Your task to perform on an android device: toggle notification dots Image 0: 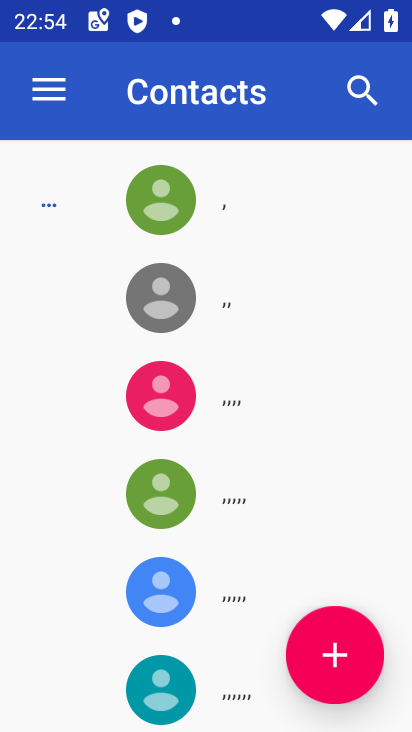
Step 0: press home button
Your task to perform on an android device: toggle notification dots Image 1: 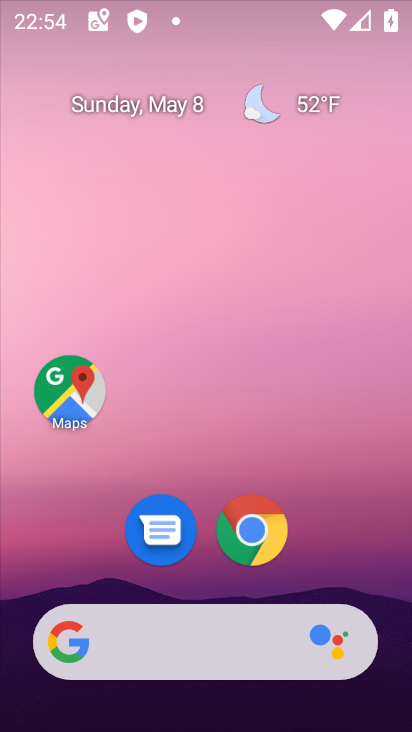
Step 1: drag from (353, 527) to (381, 89)
Your task to perform on an android device: toggle notification dots Image 2: 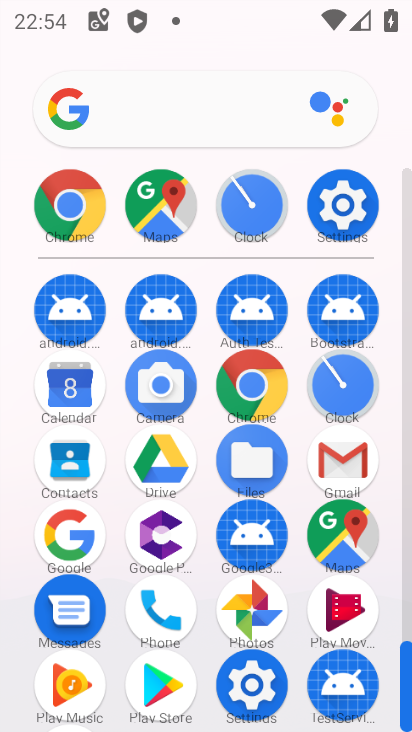
Step 2: click (355, 213)
Your task to perform on an android device: toggle notification dots Image 3: 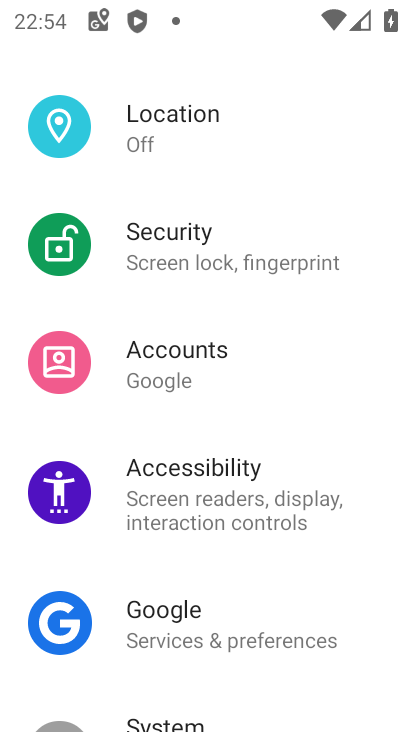
Step 3: drag from (337, 237) to (340, 620)
Your task to perform on an android device: toggle notification dots Image 4: 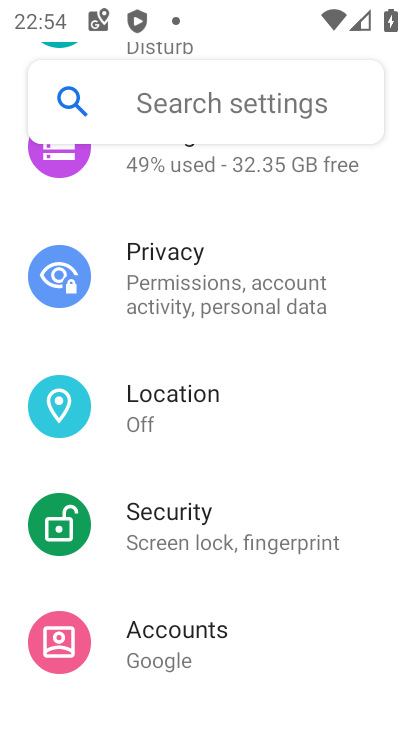
Step 4: drag from (318, 274) to (320, 578)
Your task to perform on an android device: toggle notification dots Image 5: 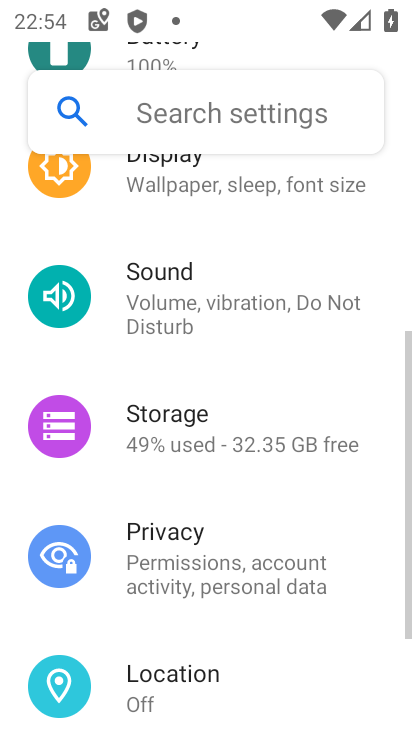
Step 5: drag from (291, 259) to (294, 589)
Your task to perform on an android device: toggle notification dots Image 6: 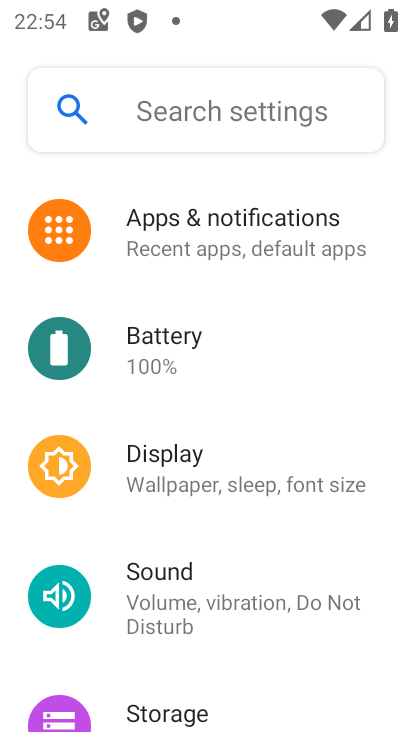
Step 6: click (283, 224)
Your task to perform on an android device: toggle notification dots Image 7: 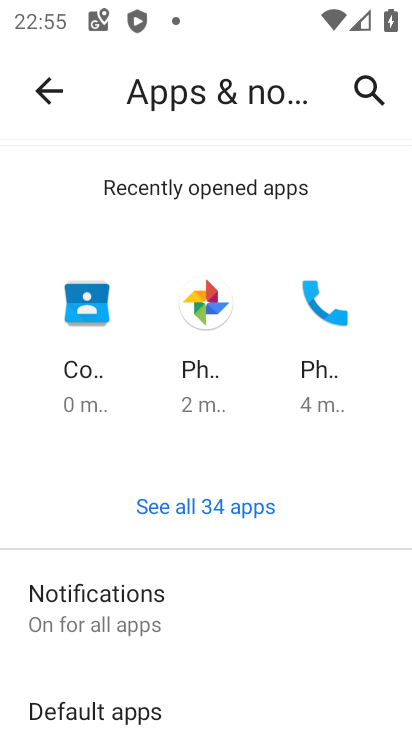
Step 7: click (129, 604)
Your task to perform on an android device: toggle notification dots Image 8: 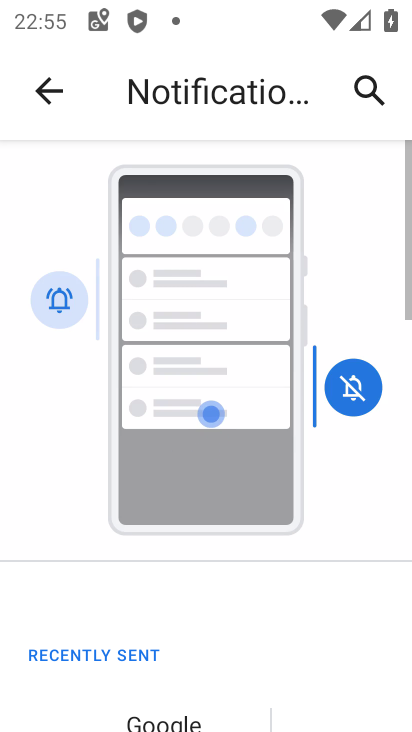
Step 8: drag from (336, 664) to (385, 214)
Your task to perform on an android device: toggle notification dots Image 9: 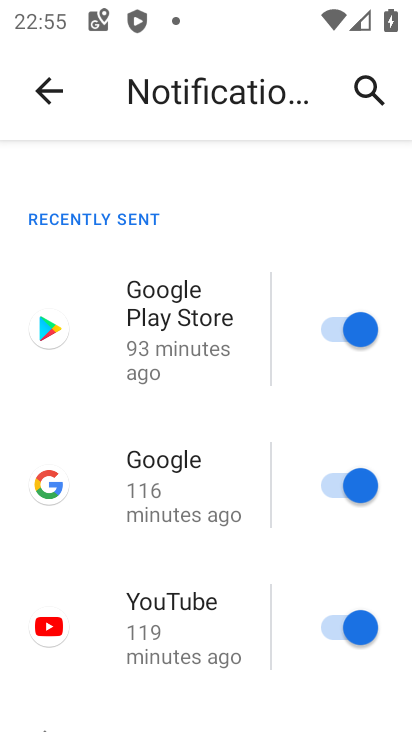
Step 9: drag from (276, 665) to (333, 207)
Your task to perform on an android device: toggle notification dots Image 10: 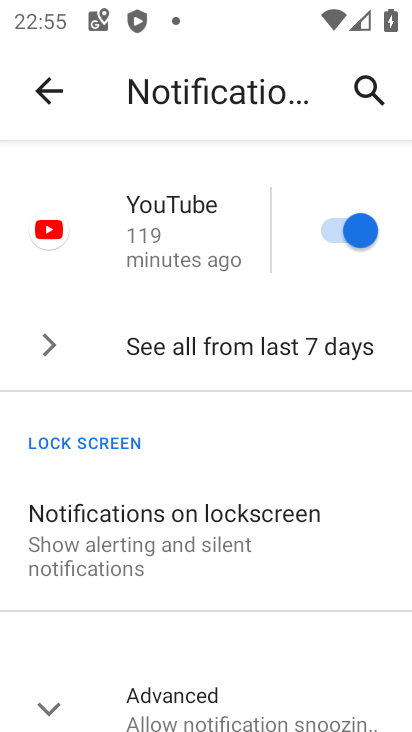
Step 10: drag from (223, 618) to (262, 369)
Your task to perform on an android device: toggle notification dots Image 11: 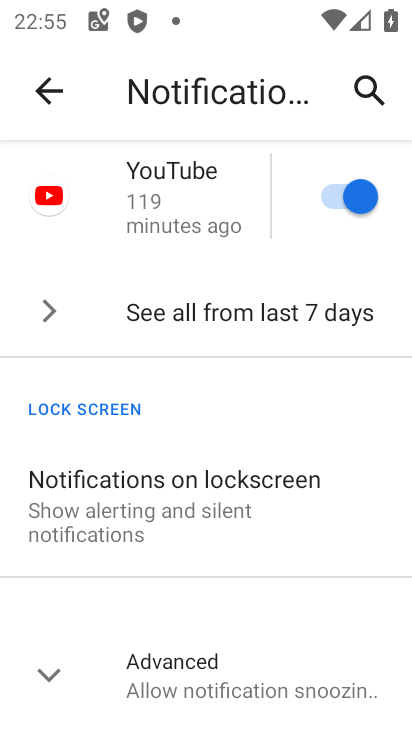
Step 11: click (207, 655)
Your task to perform on an android device: toggle notification dots Image 12: 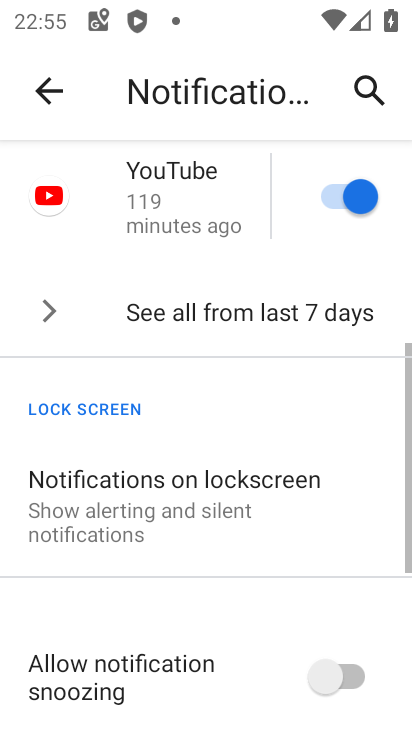
Step 12: drag from (282, 670) to (284, 290)
Your task to perform on an android device: toggle notification dots Image 13: 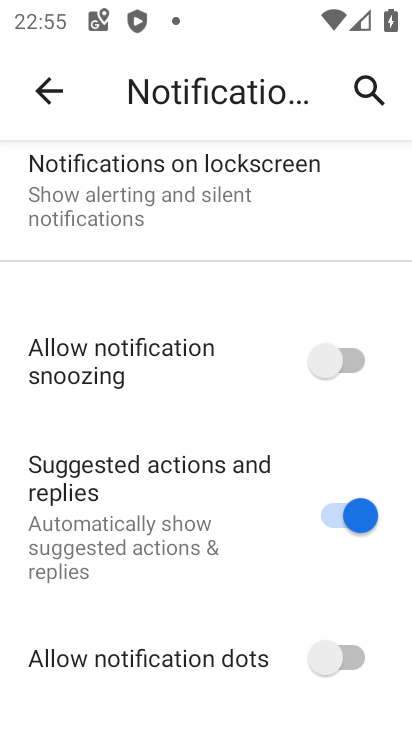
Step 13: click (344, 514)
Your task to perform on an android device: toggle notification dots Image 14: 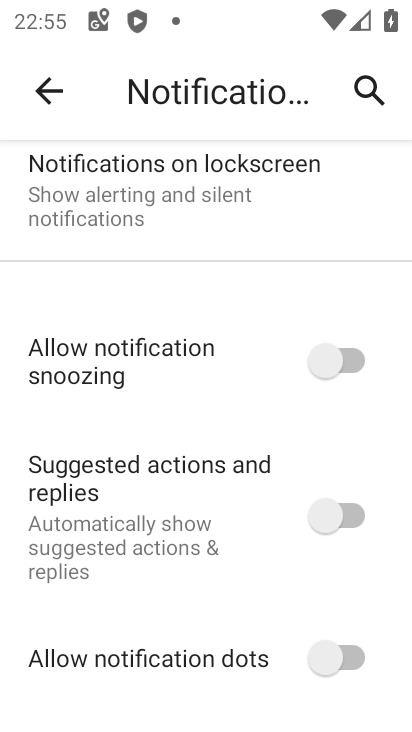
Step 14: task complete